Your task to perform on an android device: Open CNN.com Image 0: 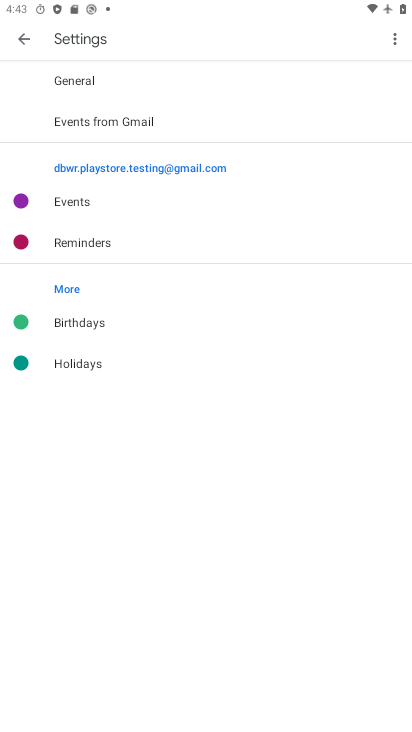
Step 0: press home button
Your task to perform on an android device: Open CNN.com Image 1: 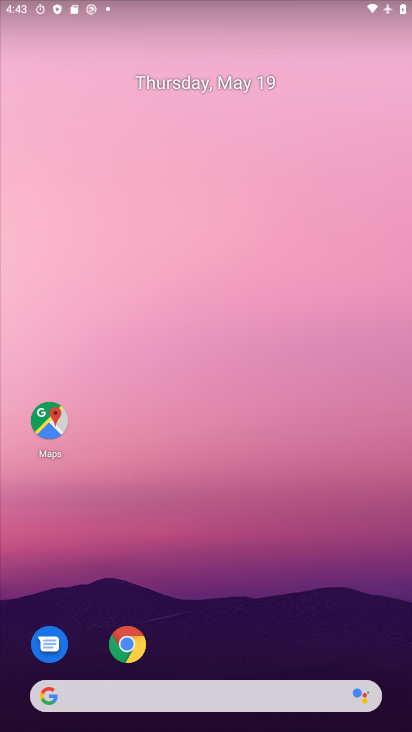
Step 1: drag from (163, 666) to (165, 297)
Your task to perform on an android device: Open CNN.com Image 2: 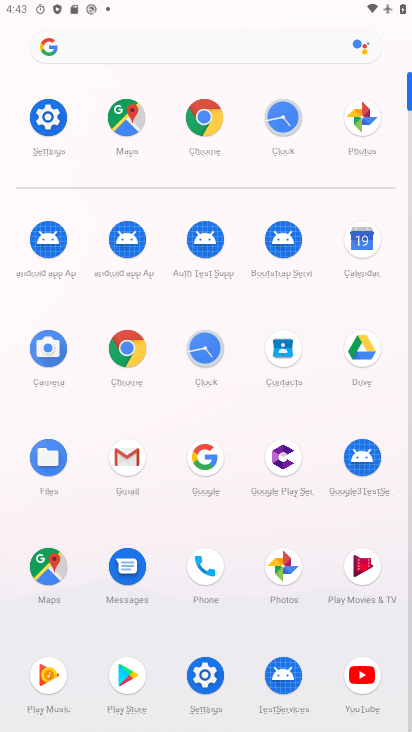
Step 2: click (201, 450)
Your task to perform on an android device: Open CNN.com Image 3: 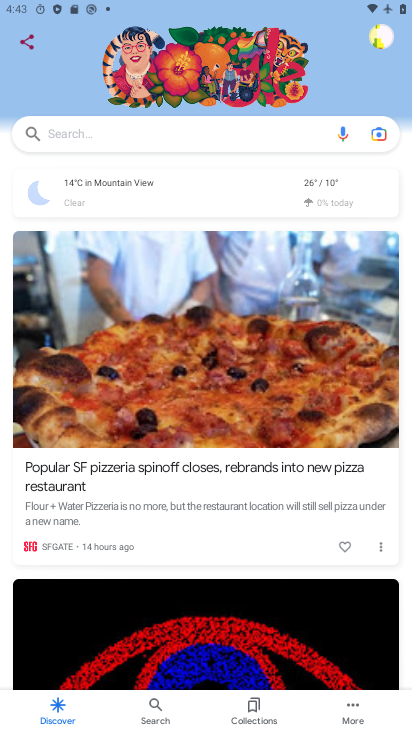
Step 3: drag from (144, 669) to (142, 277)
Your task to perform on an android device: Open CNN.com Image 4: 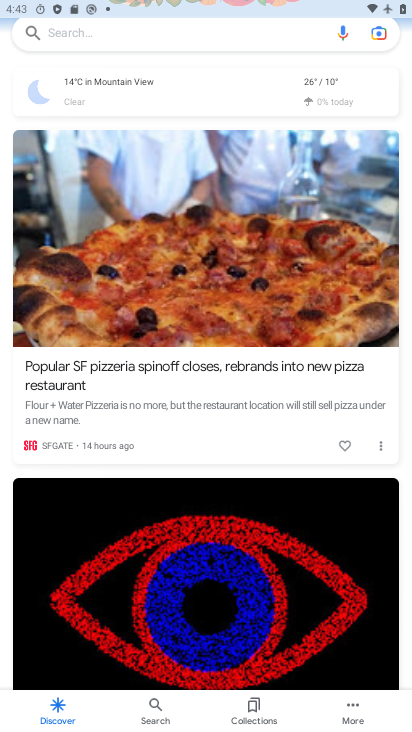
Step 4: click (131, 31)
Your task to perform on an android device: Open CNN.com Image 5: 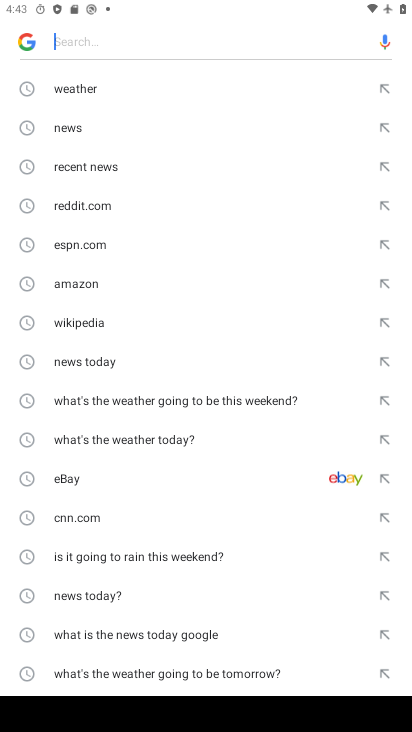
Step 5: click (91, 523)
Your task to perform on an android device: Open CNN.com Image 6: 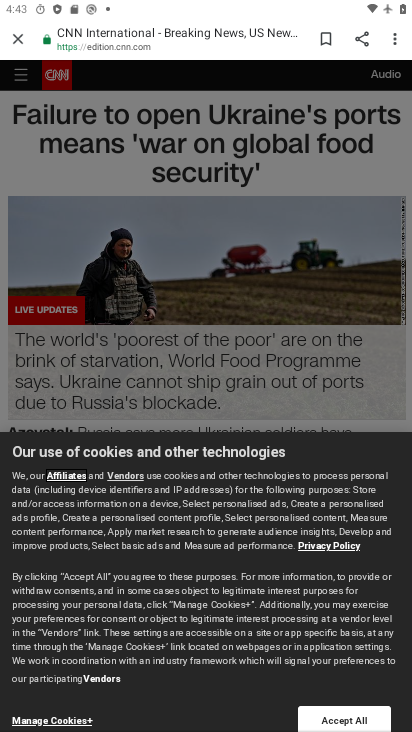
Step 6: task complete